Your task to perform on an android device: turn on wifi Image 0: 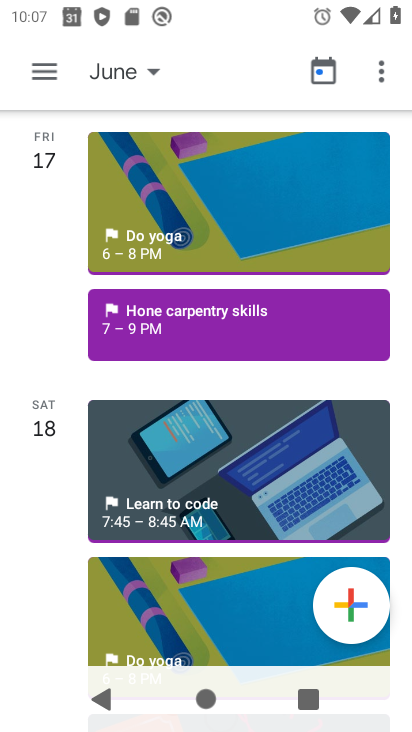
Step 0: drag from (244, 5) to (285, 587)
Your task to perform on an android device: turn on wifi Image 1: 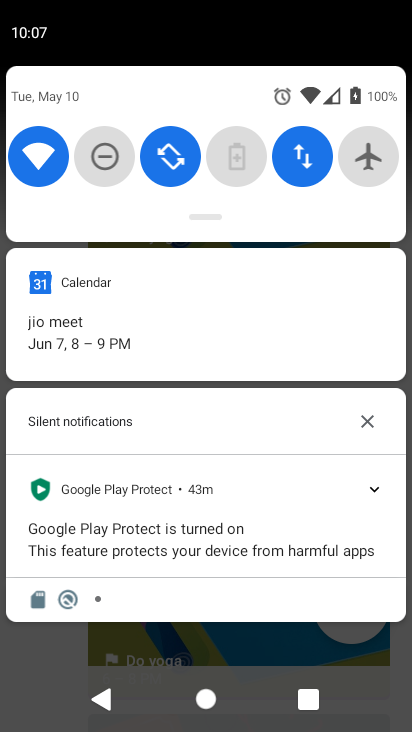
Step 1: task complete